Your task to perform on an android device: Open sound settings Image 0: 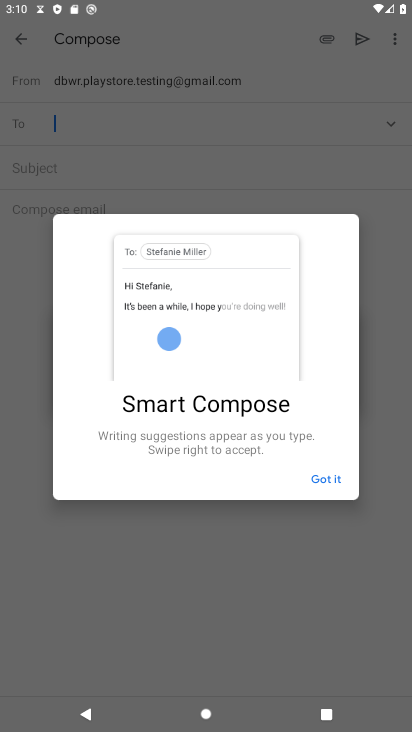
Step 0: press home button
Your task to perform on an android device: Open sound settings Image 1: 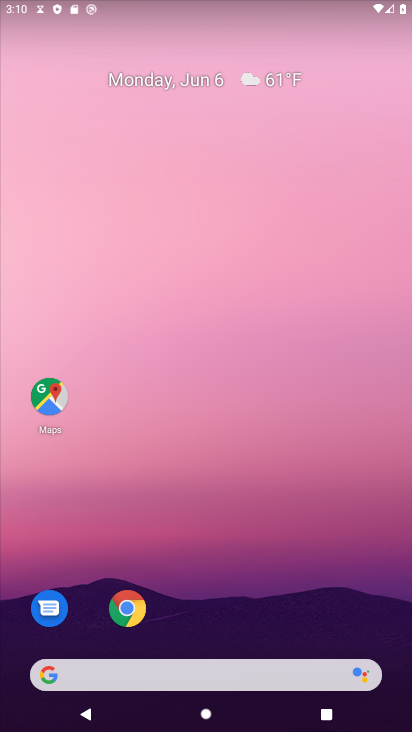
Step 1: drag from (307, 639) to (344, 0)
Your task to perform on an android device: Open sound settings Image 2: 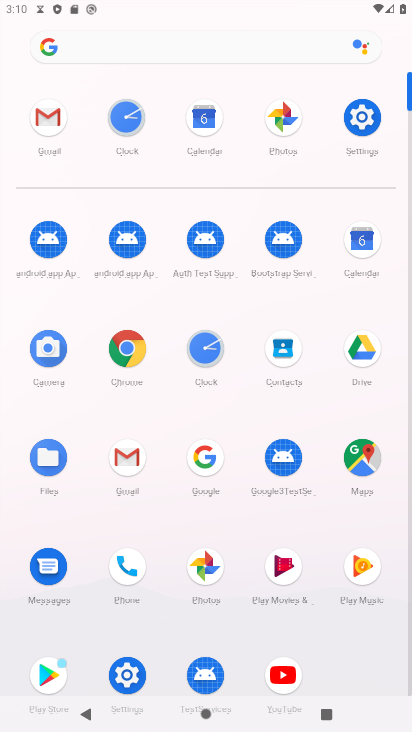
Step 2: click (358, 129)
Your task to perform on an android device: Open sound settings Image 3: 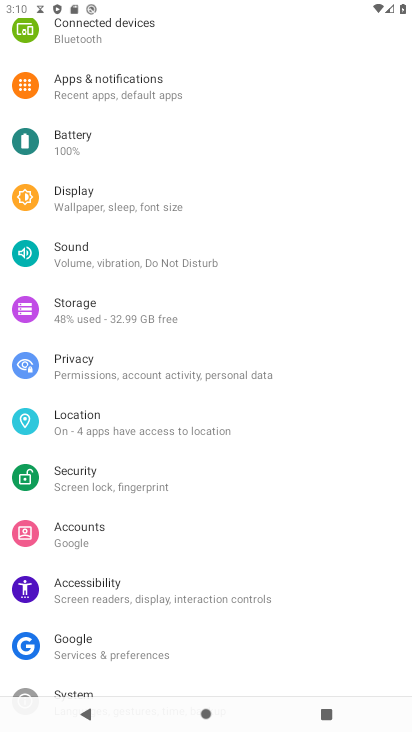
Step 3: click (84, 263)
Your task to perform on an android device: Open sound settings Image 4: 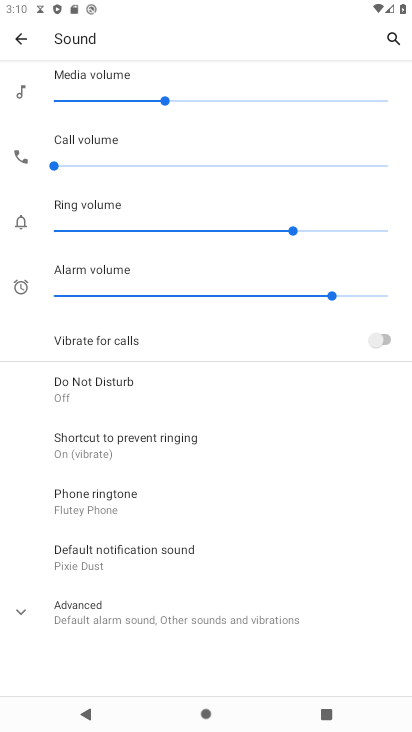
Step 4: task complete